Your task to perform on an android device: Open Chrome and go to settings Image 0: 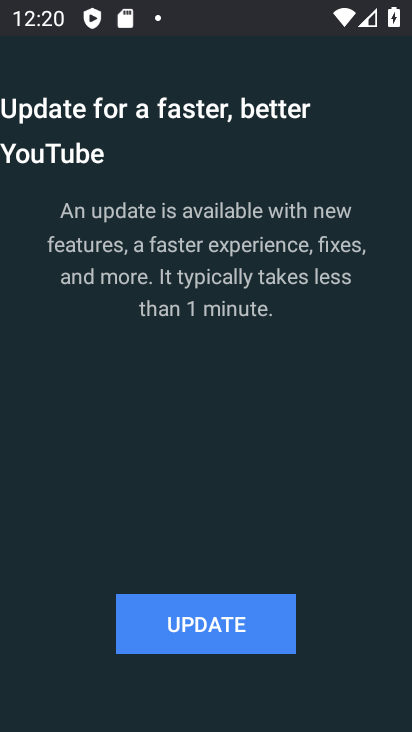
Step 0: press back button
Your task to perform on an android device: Open Chrome and go to settings Image 1: 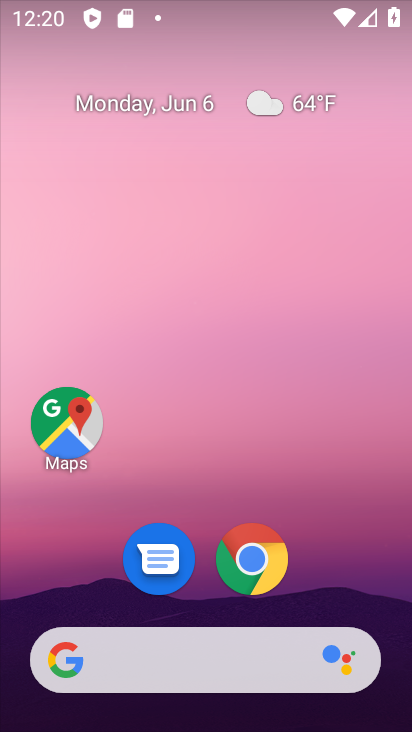
Step 1: drag from (279, 693) to (227, 118)
Your task to perform on an android device: Open Chrome and go to settings Image 2: 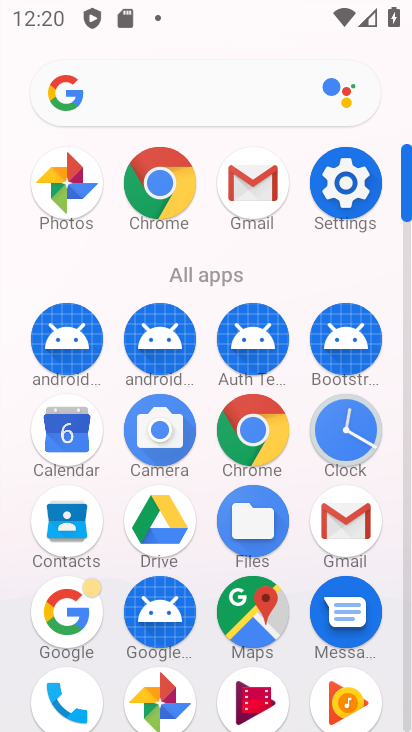
Step 2: click (155, 208)
Your task to perform on an android device: Open Chrome and go to settings Image 3: 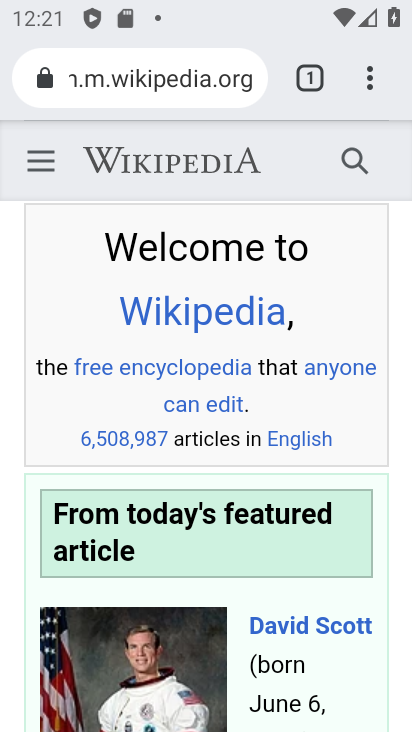
Step 3: click (360, 96)
Your task to perform on an android device: Open Chrome and go to settings Image 4: 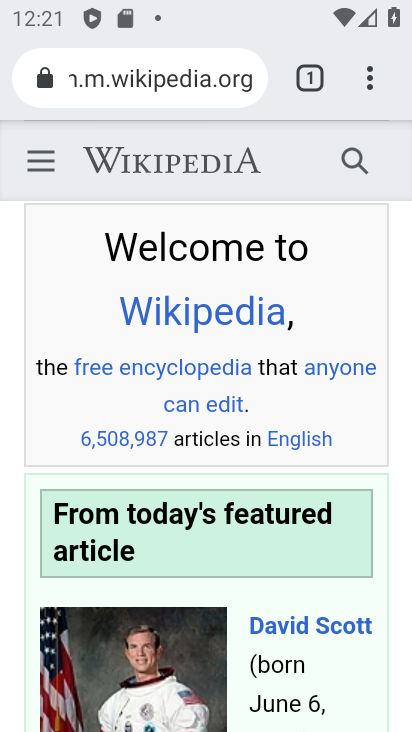
Step 4: click (351, 77)
Your task to perform on an android device: Open Chrome and go to settings Image 5: 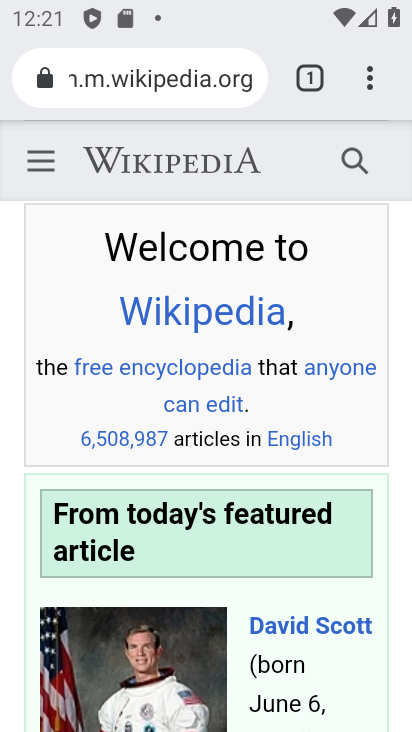
Step 5: click (356, 85)
Your task to perform on an android device: Open Chrome and go to settings Image 6: 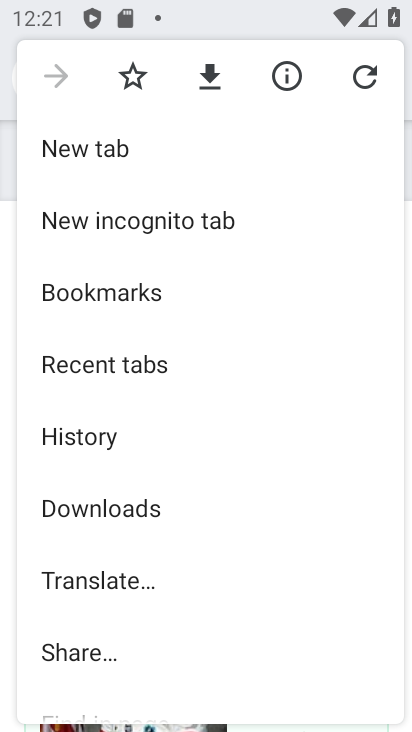
Step 6: drag from (151, 605) to (132, 368)
Your task to perform on an android device: Open Chrome and go to settings Image 7: 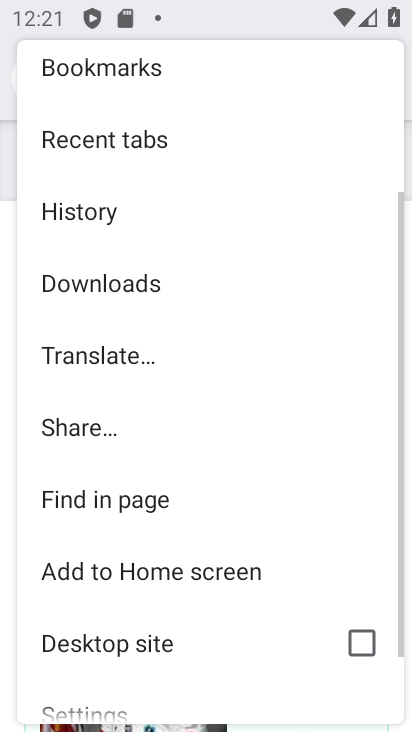
Step 7: click (71, 704)
Your task to perform on an android device: Open Chrome and go to settings Image 8: 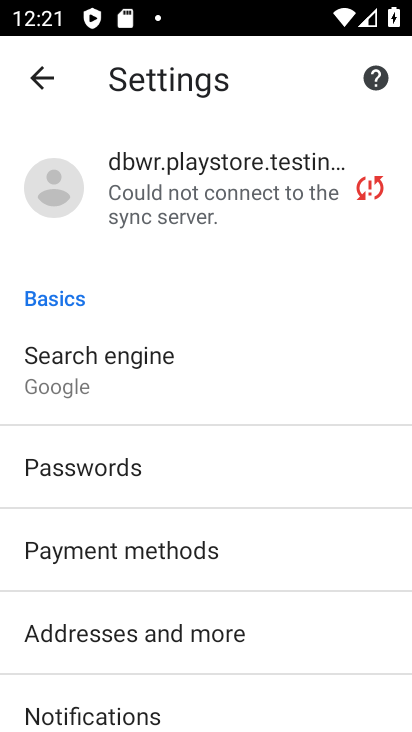
Step 8: task complete